Your task to perform on an android device: Go to settings Image 0: 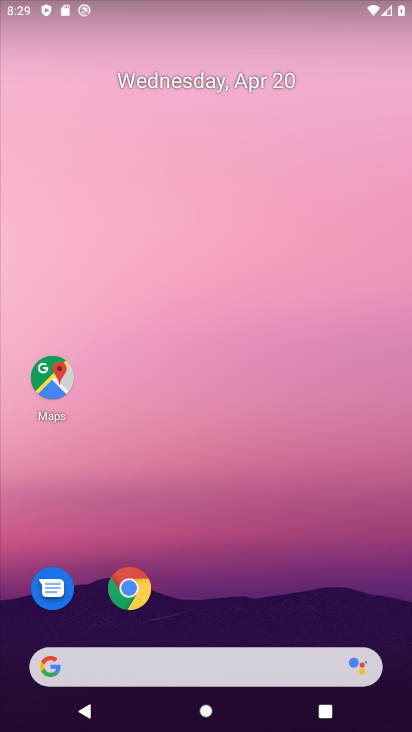
Step 0: drag from (216, 573) to (196, 98)
Your task to perform on an android device: Go to settings Image 1: 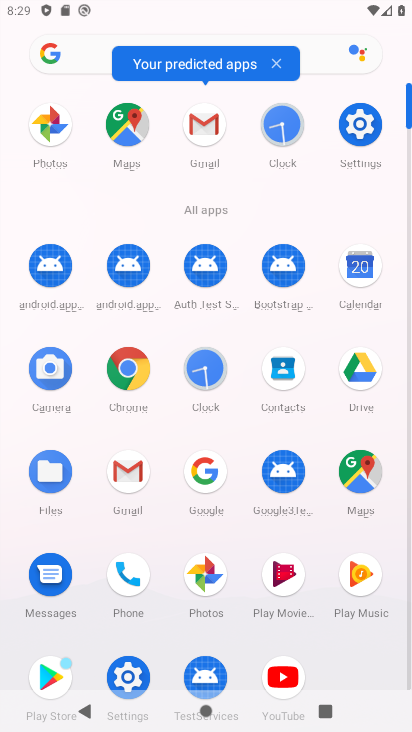
Step 1: click (357, 119)
Your task to perform on an android device: Go to settings Image 2: 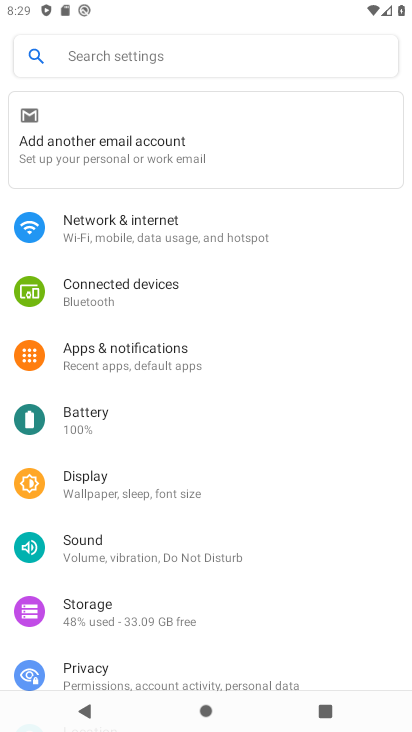
Step 2: task complete